Your task to perform on an android device: Add acer nitro to the cart on costco Image 0: 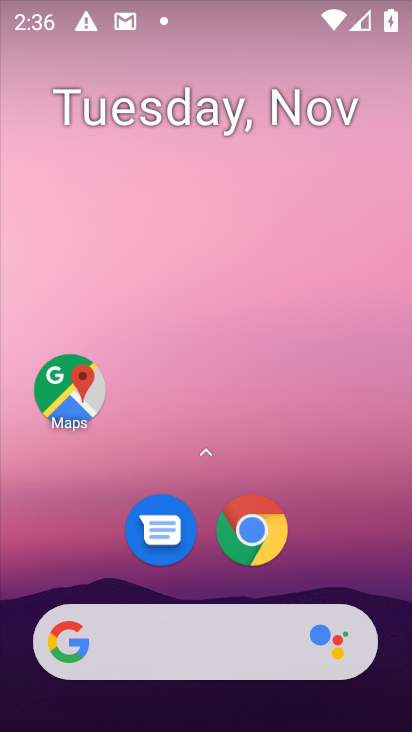
Step 0: drag from (192, 559) to (180, 92)
Your task to perform on an android device: Add acer nitro to the cart on costco Image 1: 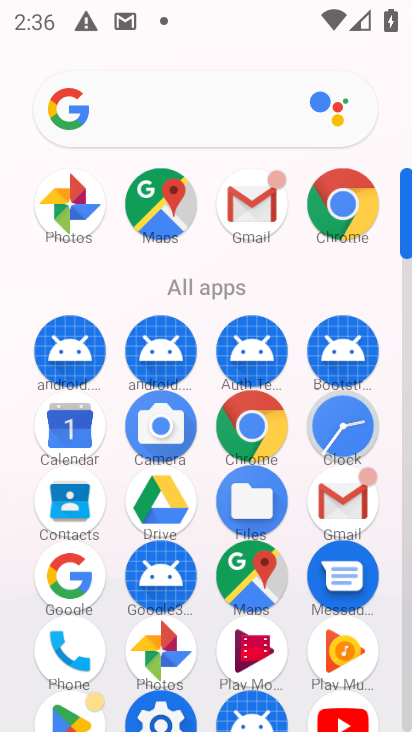
Step 1: click (252, 431)
Your task to perform on an android device: Add acer nitro to the cart on costco Image 2: 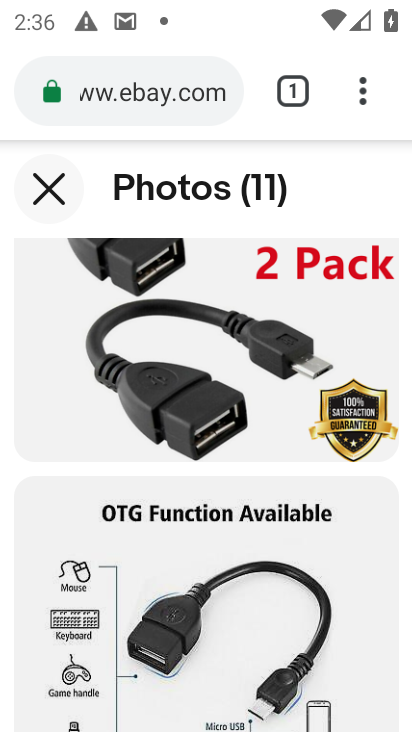
Step 2: click (173, 97)
Your task to perform on an android device: Add acer nitro to the cart on costco Image 3: 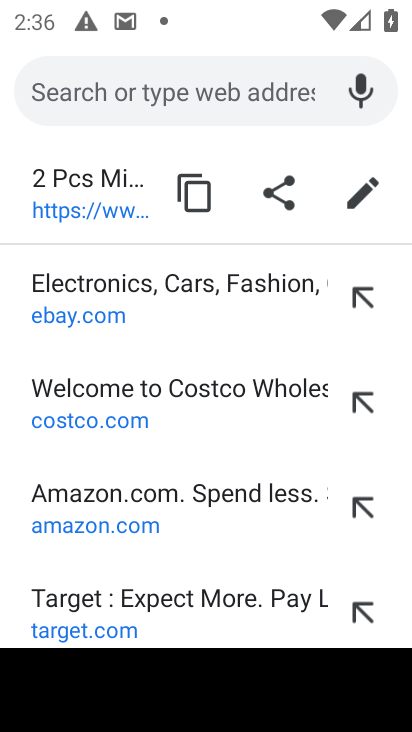
Step 3: type "costco"
Your task to perform on an android device: Add acer nitro to the cart on costco Image 4: 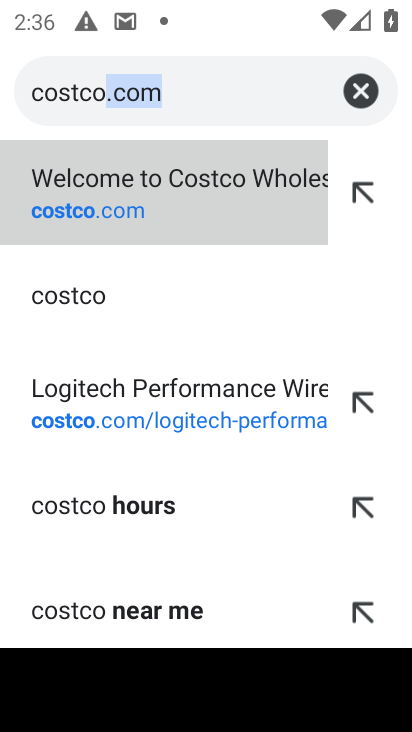
Step 4: click (112, 203)
Your task to perform on an android device: Add acer nitro to the cart on costco Image 5: 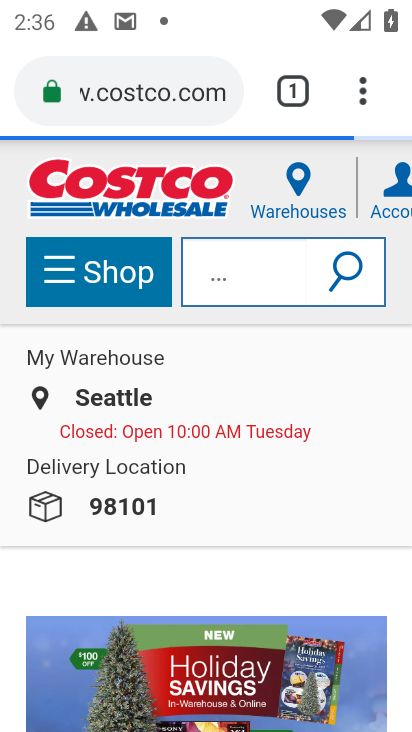
Step 5: click (243, 258)
Your task to perform on an android device: Add acer nitro to the cart on costco Image 6: 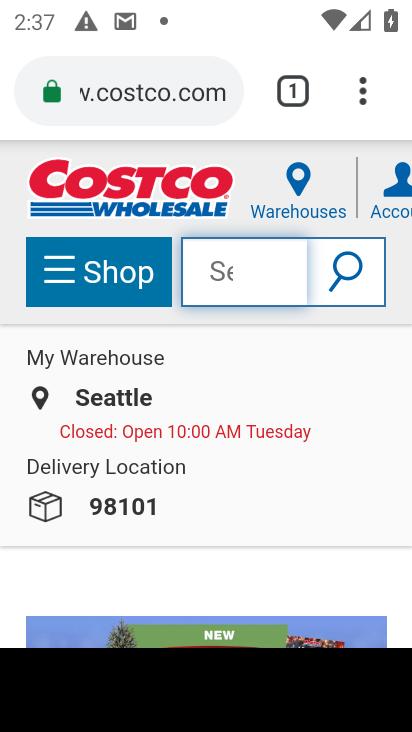
Step 6: type "acer nitro"
Your task to perform on an android device: Add acer nitro to the cart on costco Image 7: 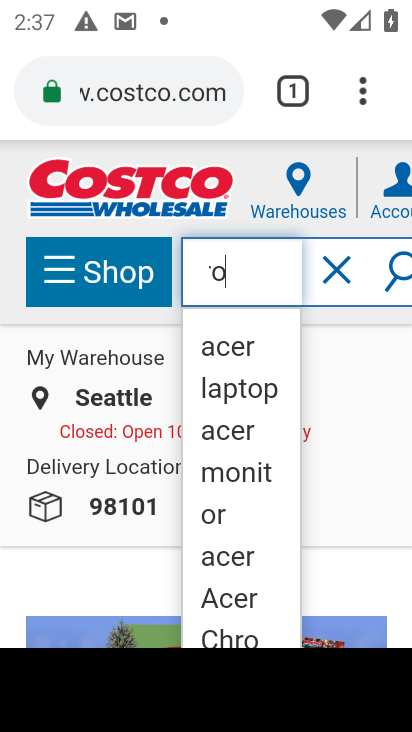
Step 7: click (404, 257)
Your task to perform on an android device: Add acer nitro to the cart on costco Image 8: 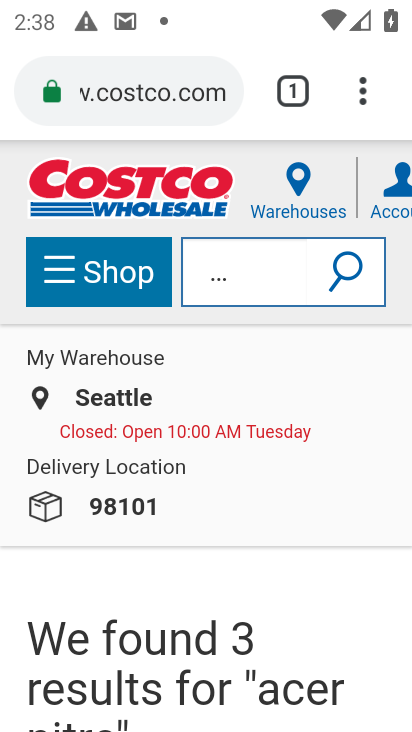
Step 8: click (262, 260)
Your task to perform on an android device: Add acer nitro to the cart on costco Image 9: 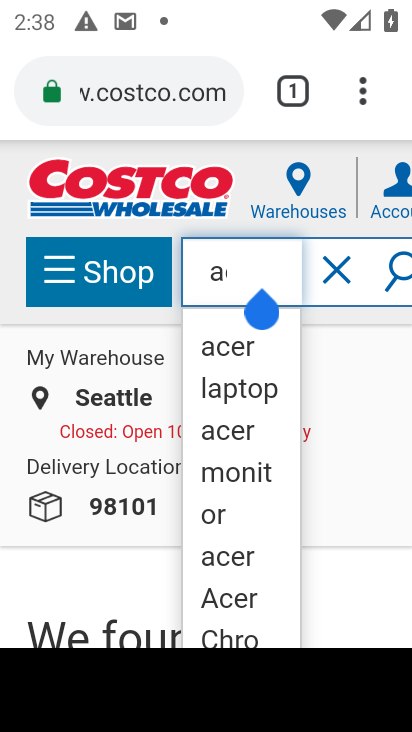
Step 9: task complete